Your task to perform on an android device: Open Wikipedia Image 0: 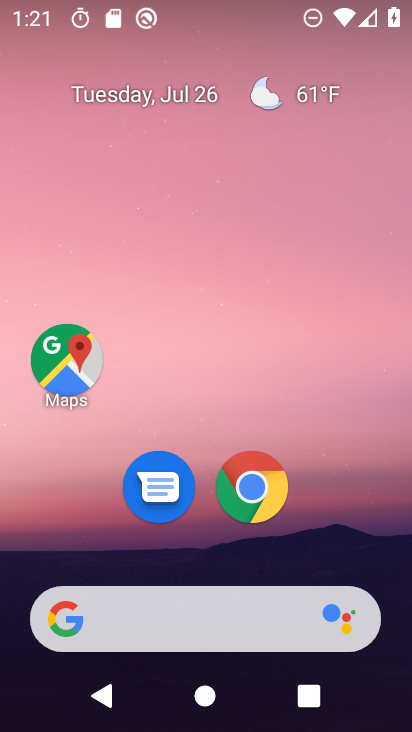
Step 0: click (239, 498)
Your task to perform on an android device: Open Wikipedia Image 1: 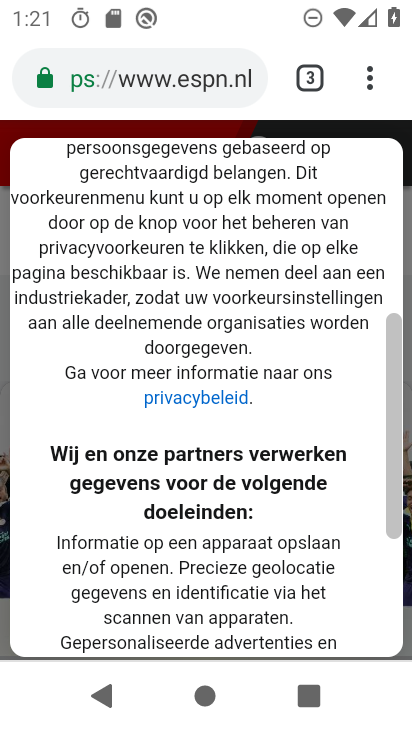
Step 1: click (304, 67)
Your task to perform on an android device: Open Wikipedia Image 2: 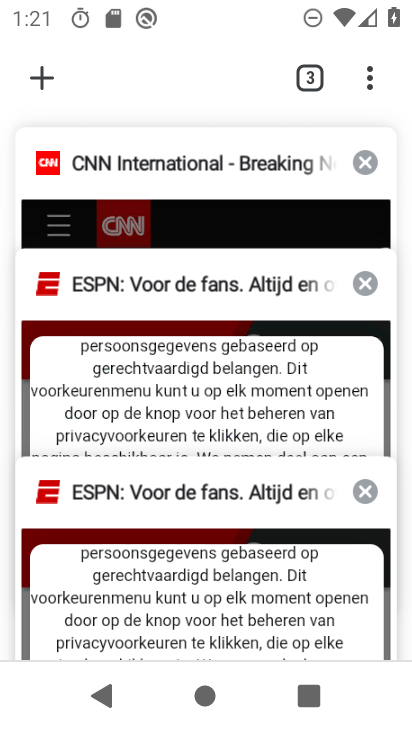
Step 2: click (45, 79)
Your task to perform on an android device: Open Wikipedia Image 3: 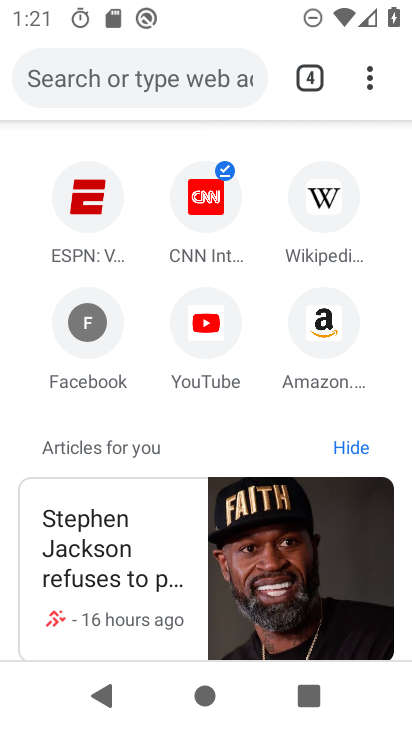
Step 3: click (311, 213)
Your task to perform on an android device: Open Wikipedia Image 4: 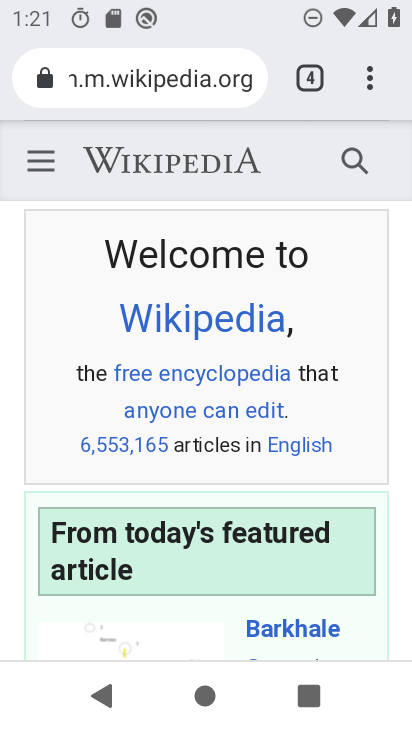
Step 4: task complete